Your task to perform on an android device: check google app version Image 0: 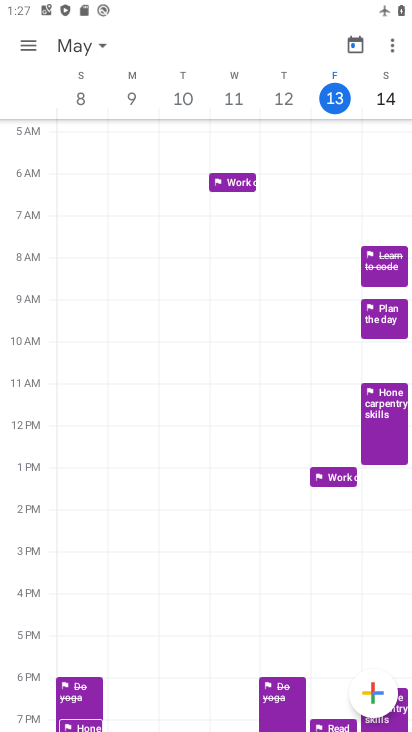
Step 0: press home button
Your task to perform on an android device: check google app version Image 1: 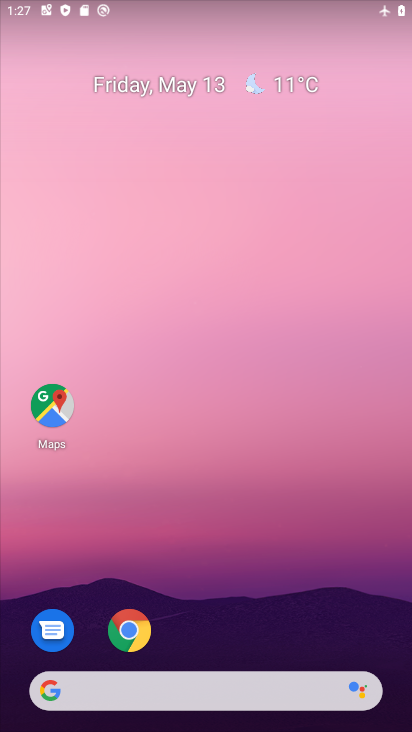
Step 1: drag from (200, 621) to (213, 9)
Your task to perform on an android device: check google app version Image 2: 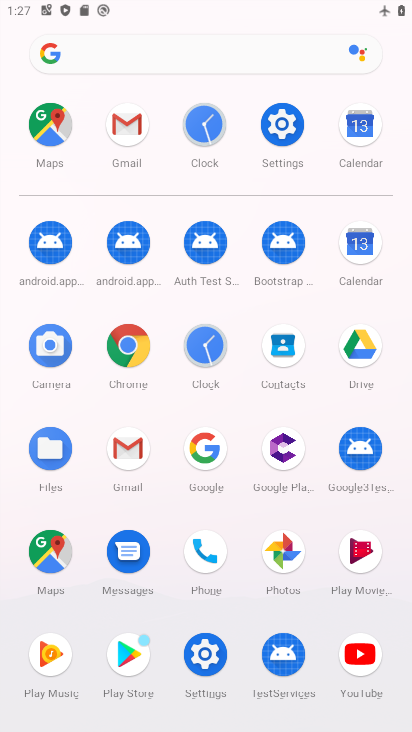
Step 2: click (201, 455)
Your task to perform on an android device: check google app version Image 3: 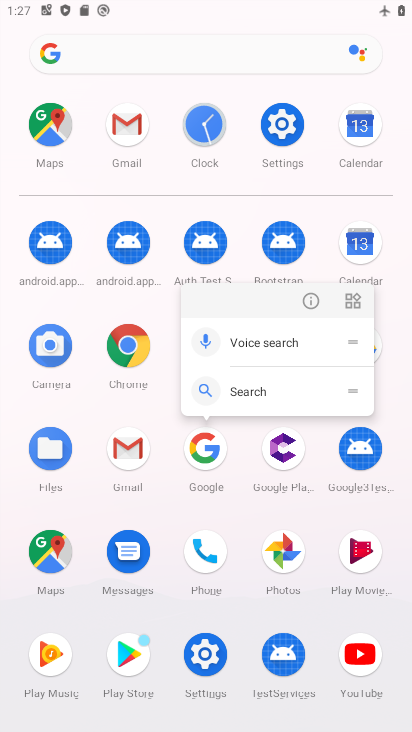
Step 3: click (306, 302)
Your task to perform on an android device: check google app version Image 4: 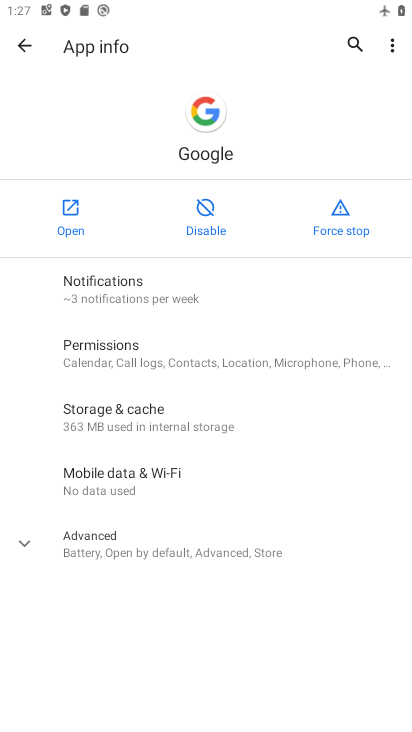
Step 4: click (23, 550)
Your task to perform on an android device: check google app version Image 5: 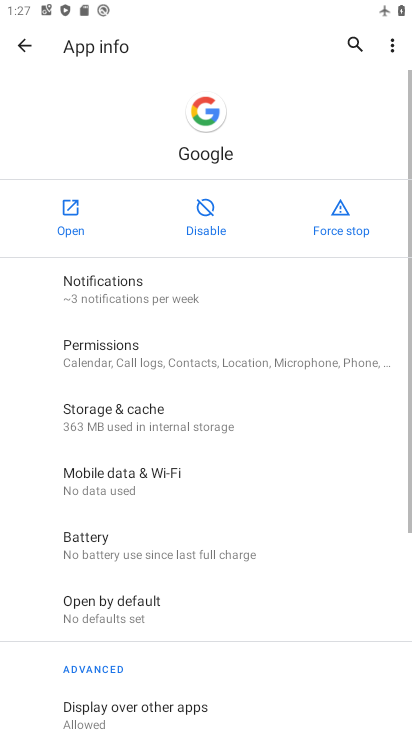
Step 5: task complete